Your task to perform on an android device: open a new tab in the chrome app Image 0: 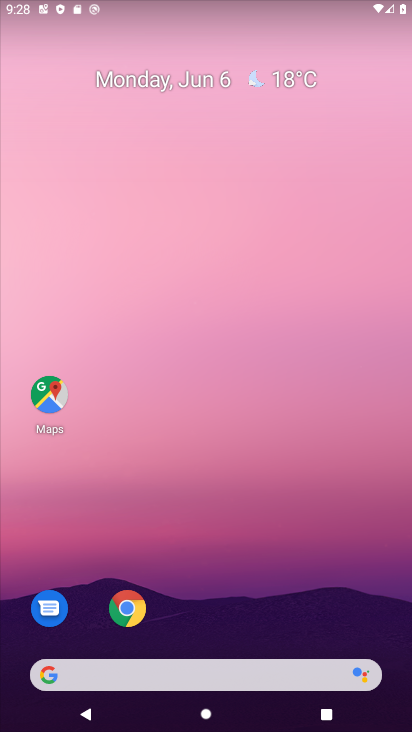
Step 0: click (126, 609)
Your task to perform on an android device: open a new tab in the chrome app Image 1: 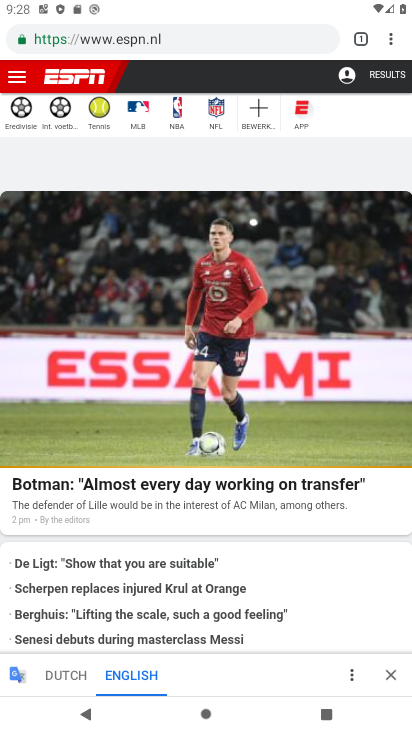
Step 1: click (390, 38)
Your task to perform on an android device: open a new tab in the chrome app Image 2: 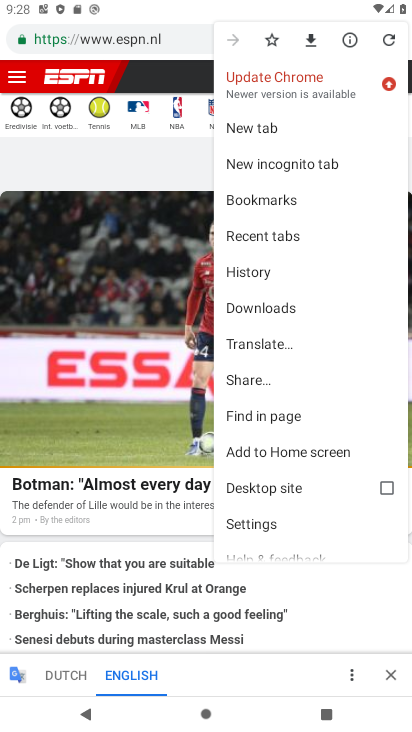
Step 2: click (272, 128)
Your task to perform on an android device: open a new tab in the chrome app Image 3: 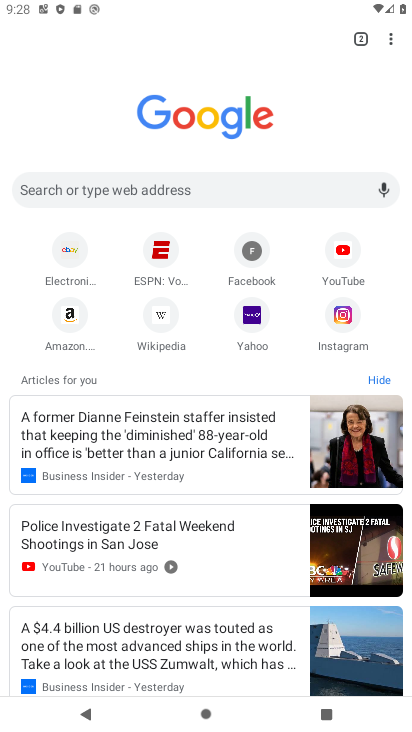
Step 3: task complete